Your task to perform on an android device: Clear the shopping cart on target. Search for logitech g pro on target, select the first entry, add it to the cart, then select checkout. Image 0: 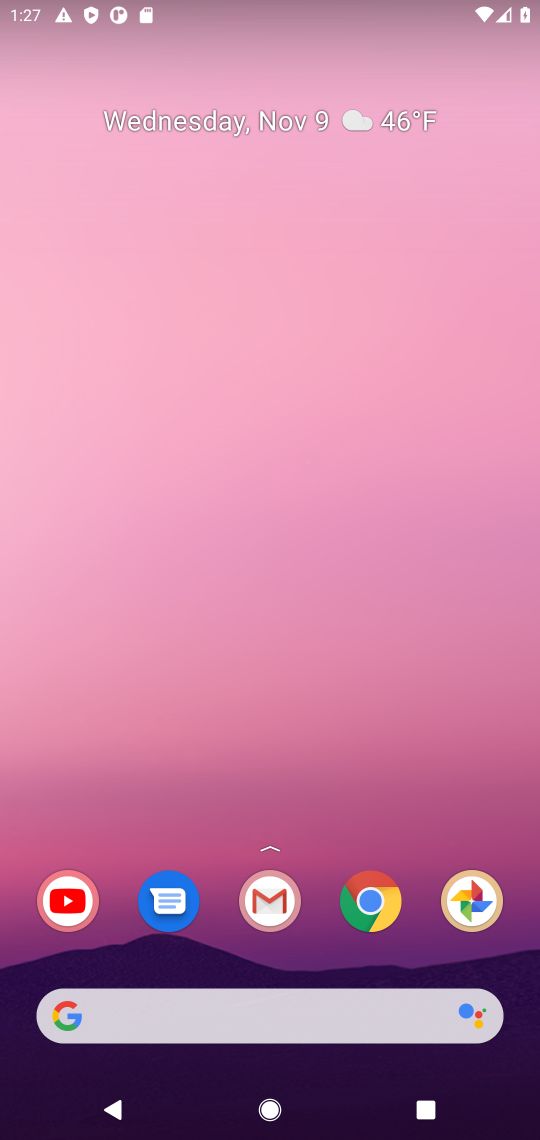
Step 0: click (359, 897)
Your task to perform on an android device: Clear the shopping cart on target. Search for logitech g pro on target, select the first entry, add it to the cart, then select checkout. Image 1: 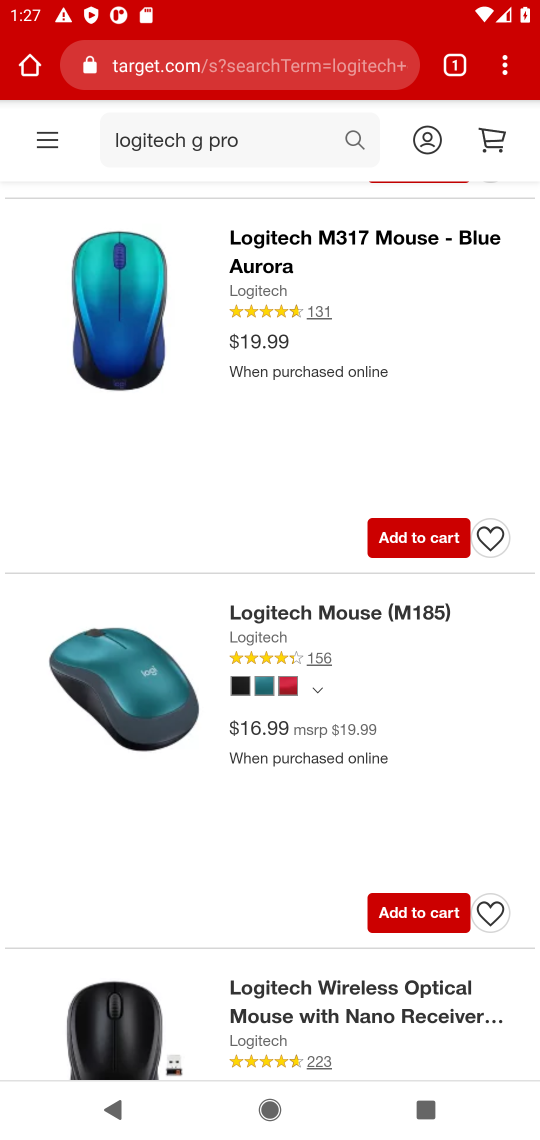
Step 1: click (492, 137)
Your task to perform on an android device: Clear the shopping cart on target. Search for logitech g pro on target, select the first entry, add it to the cart, then select checkout. Image 2: 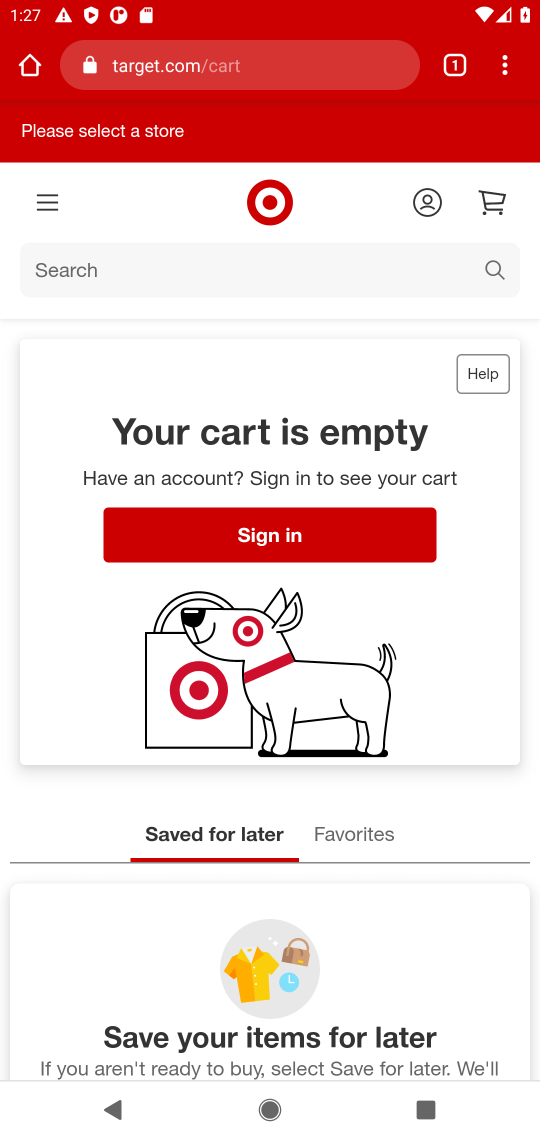
Step 2: task complete